Your task to perform on an android device: clear history in the chrome app Image 0: 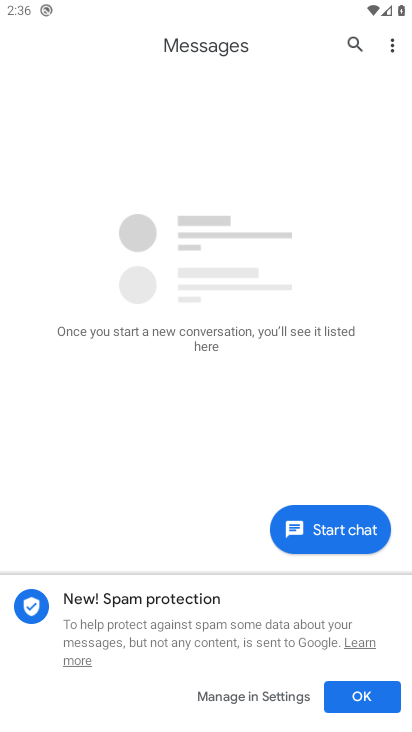
Step 0: press home button
Your task to perform on an android device: clear history in the chrome app Image 1: 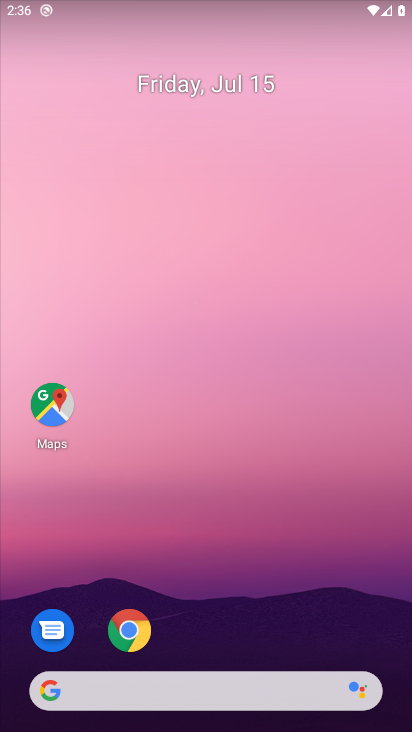
Step 1: click (123, 641)
Your task to perform on an android device: clear history in the chrome app Image 2: 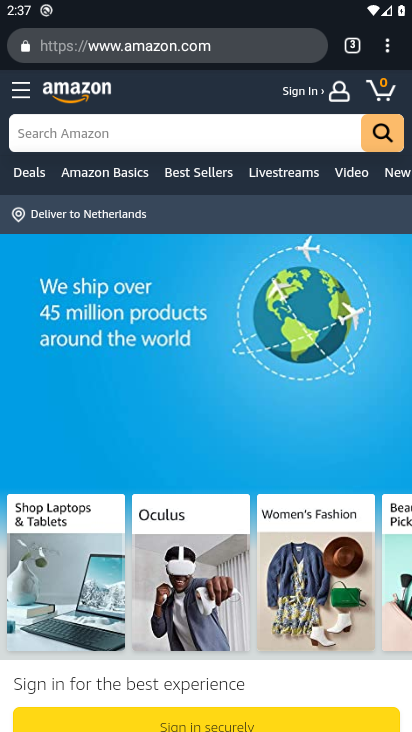
Step 2: drag from (391, 46) to (207, 249)
Your task to perform on an android device: clear history in the chrome app Image 3: 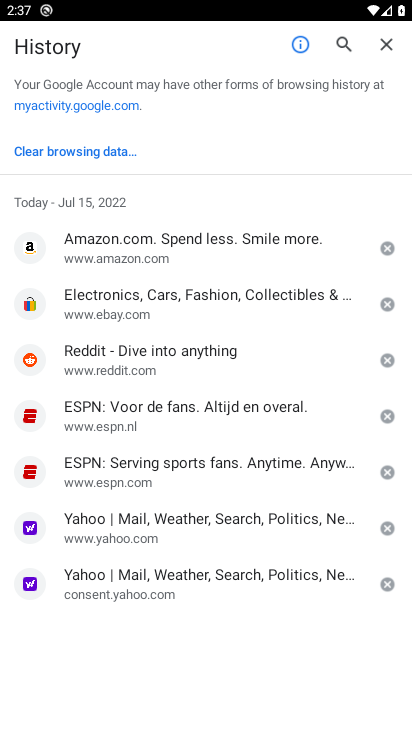
Step 3: click (71, 147)
Your task to perform on an android device: clear history in the chrome app Image 4: 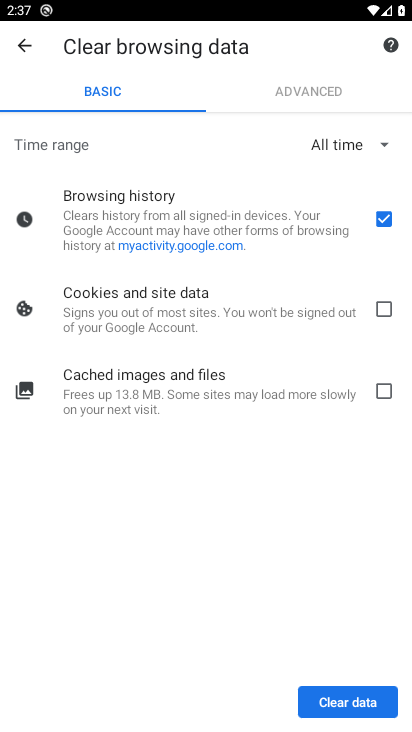
Step 4: click (325, 692)
Your task to perform on an android device: clear history in the chrome app Image 5: 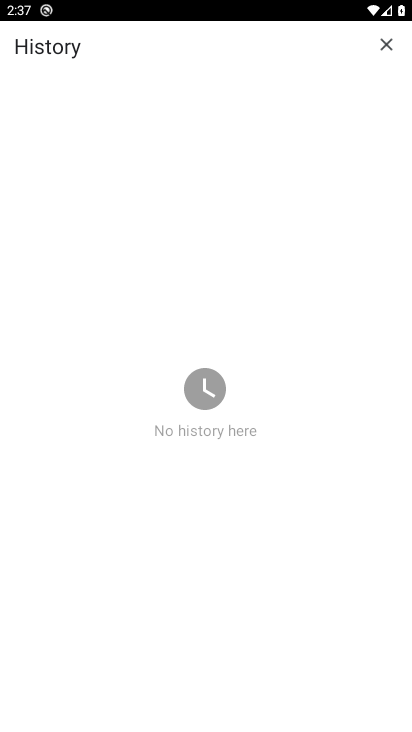
Step 5: task complete